Your task to perform on an android device: see creations saved in the google photos Image 0: 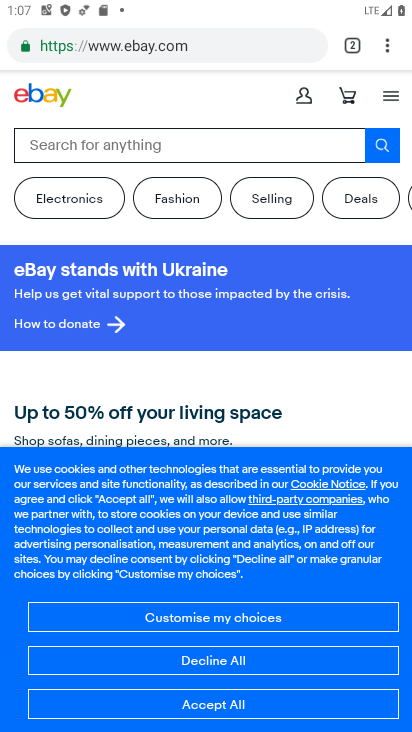
Step 0: press home button
Your task to perform on an android device: see creations saved in the google photos Image 1: 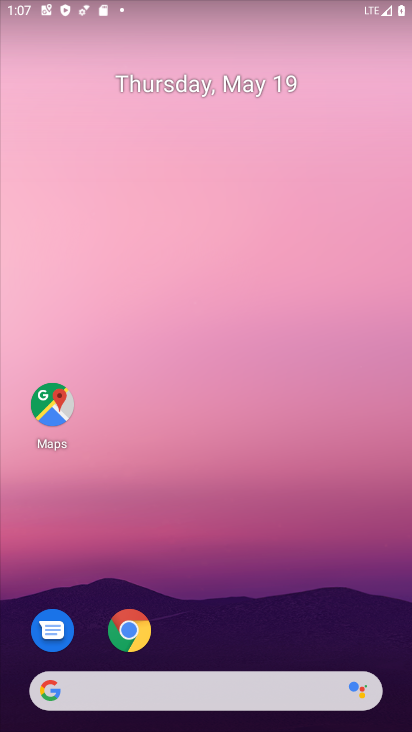
Step 1: drag from (205, 670) to (131, 65)
Your task to perform on an android device: see creations saved in the google photos Image 2: 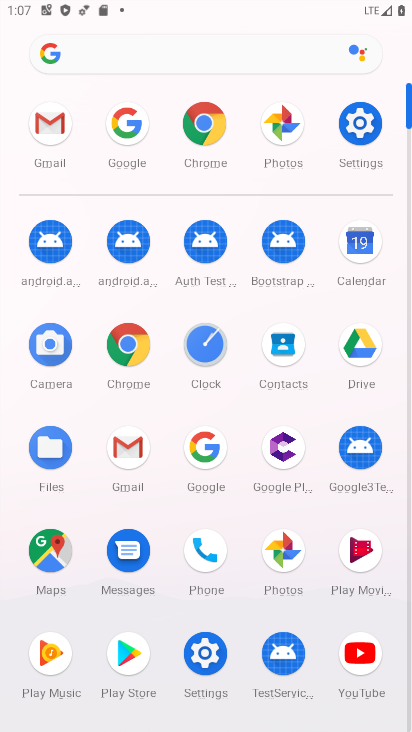
Step 2: click (281, 566)
Your task to perform on an android device: see creations saved in the google photos Image 3: 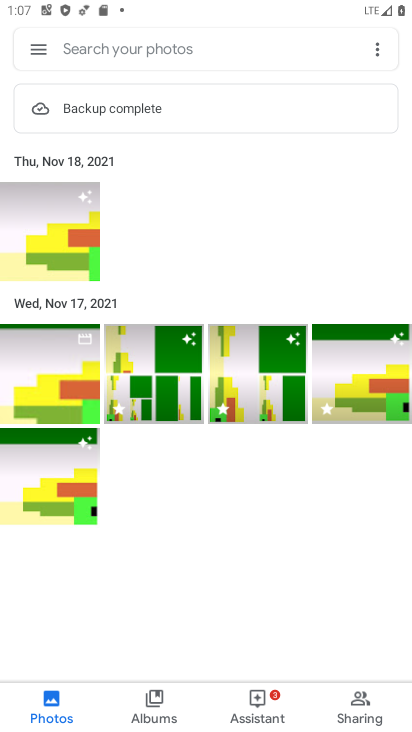
Step 3: click (153, 35)
Your task to perform on an android device: see creations saved in the google photos Image 4: 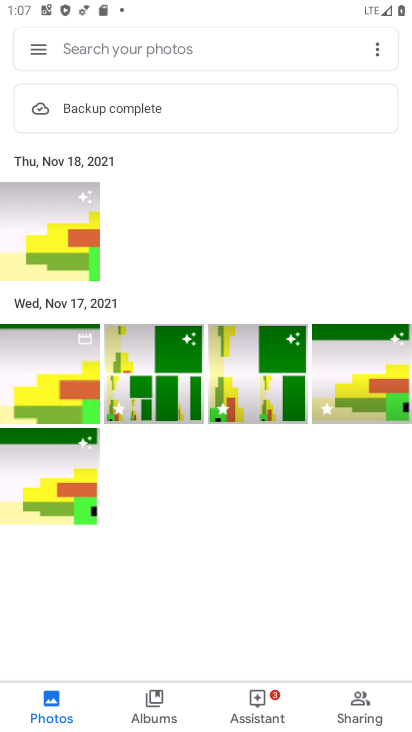
Step 4: click (130, 47)
Your task to perform on an android device: see creations saved in the google photos Image 5: 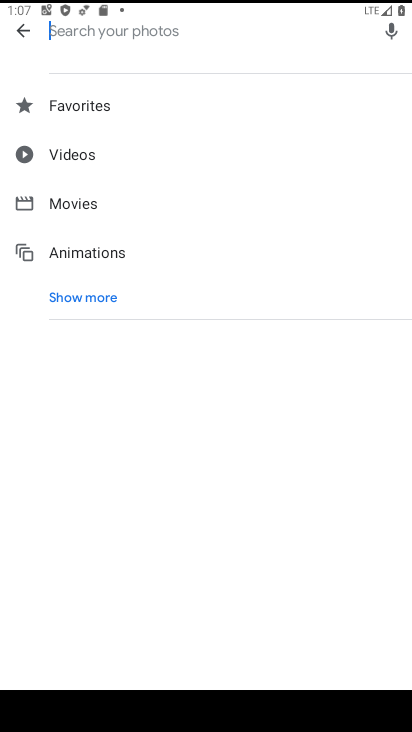
Step 5: click (269, 51)
Your task to perform on an android device: see creations saved in the google photos Image 6: 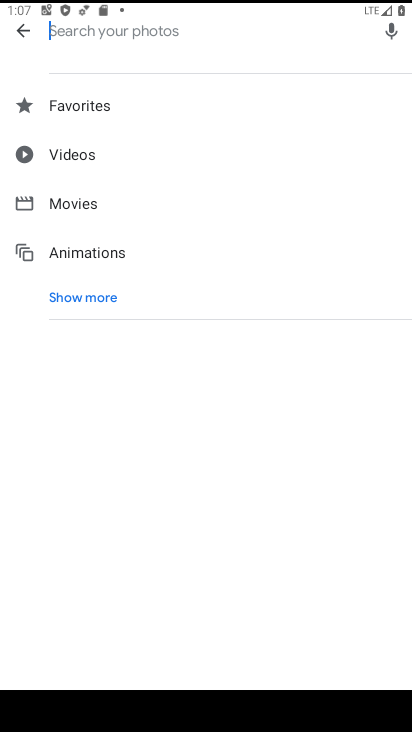
Step 6: click (122, 296)
Your task to perform on an android device: see creations saved in the google photos Image 7: 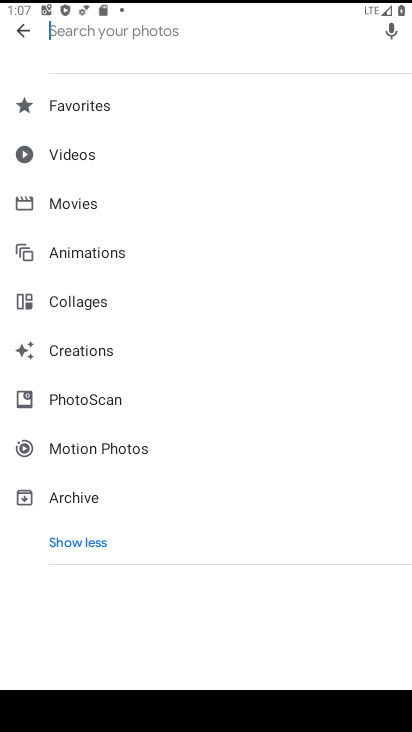
Step 7: click (92, 354)
Your task to perform on an android device: see creations saved in the google photos Image 8: 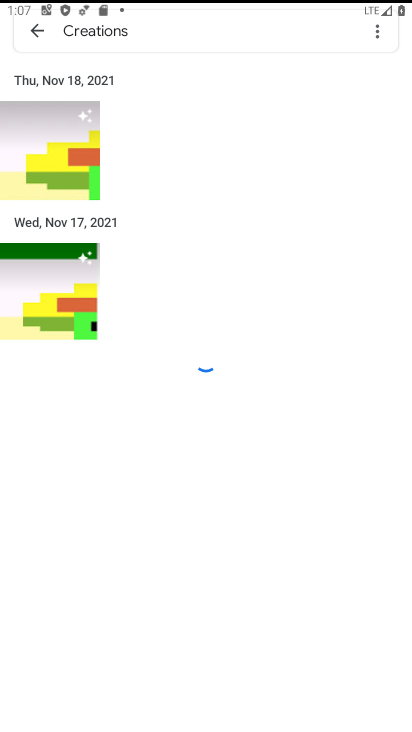
Step 8: task complete